Your task to perform on an android device: change timer sound Image 0: 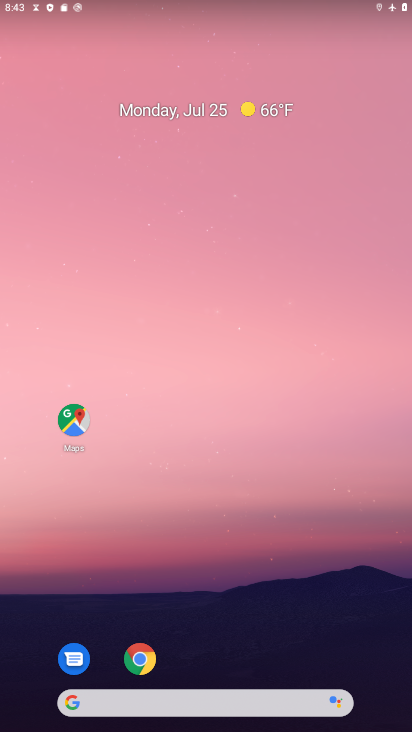
Step 0: click (142, 84)
Your task to perform on an android device: change timer sound Image 1: 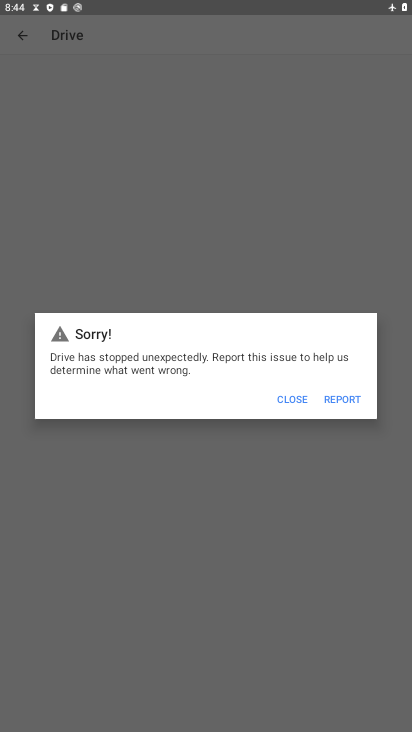
Step 1: click (284, 403)
Your task to perform on an android device: change timer sound Image 2: 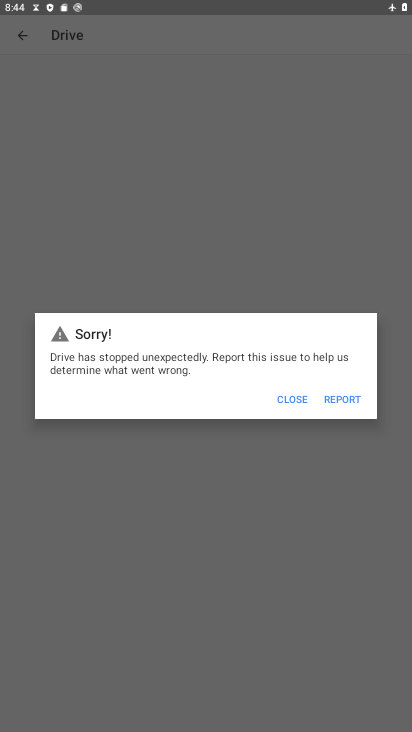
Step 2: click (285, 401)
Your task to perform on an android device: change timer sound Image 3: 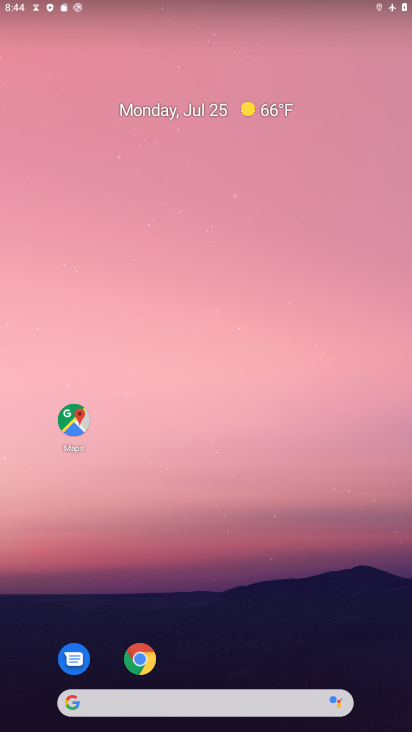
Step 3: drag from (231, 603) to (183, 10)
Your task to perform on an android device: change timer sound Image 4: 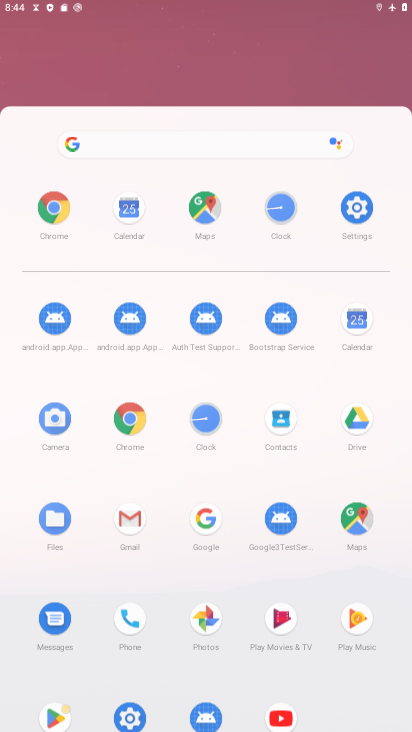
Step 4: drag from (176, 507) to (126, 17)
Your task to perform on an android device: change timer sound Image 5: 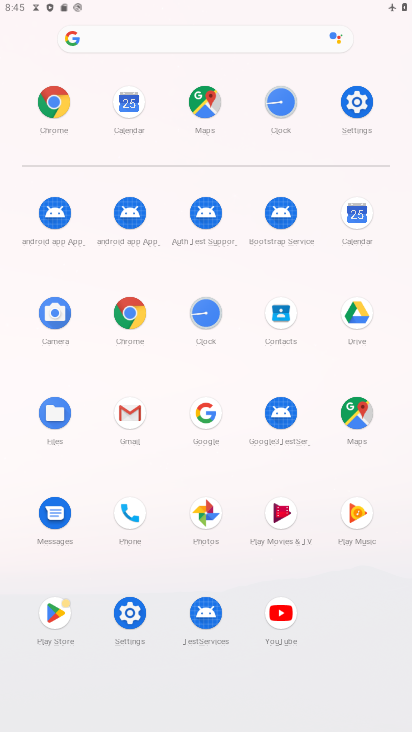
Step 5: click (209, 308)
Your task to perform on an android device: change timer sound Image 6: 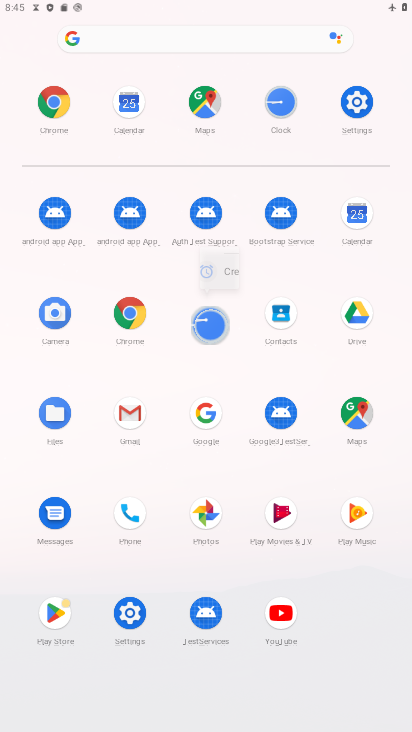
Step 6: click (204, 326)
Your task to perform on an android device: change timer sound Image 7: 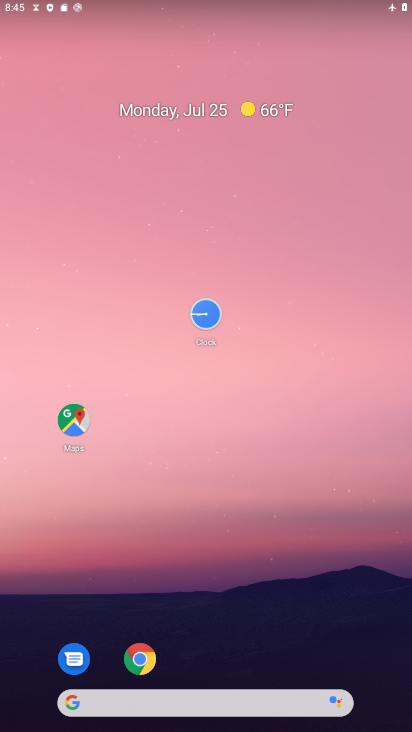
Step 7: click (206, 320)
Your task to perform on an android device: change timer sound Image 8: 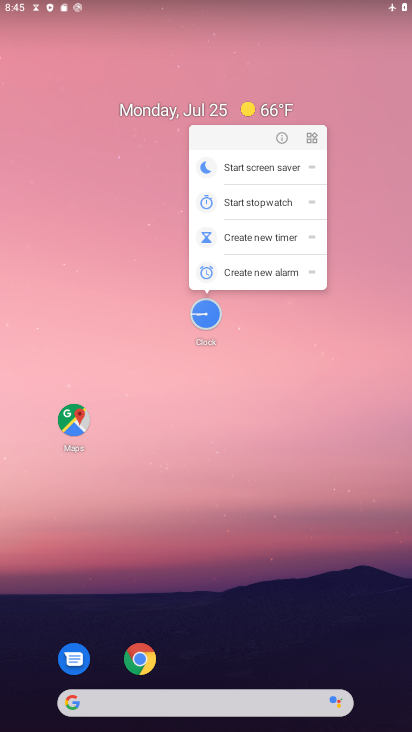
Step 8: click (208, 312)
Your task to perform on an android device: change timer sound Image 9: 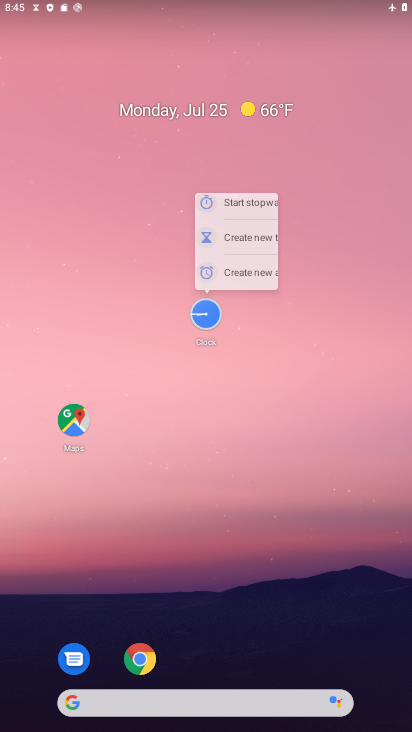
Step 9: click (207, 313)
Your task to perform on an android device: change timer sound Image 10: 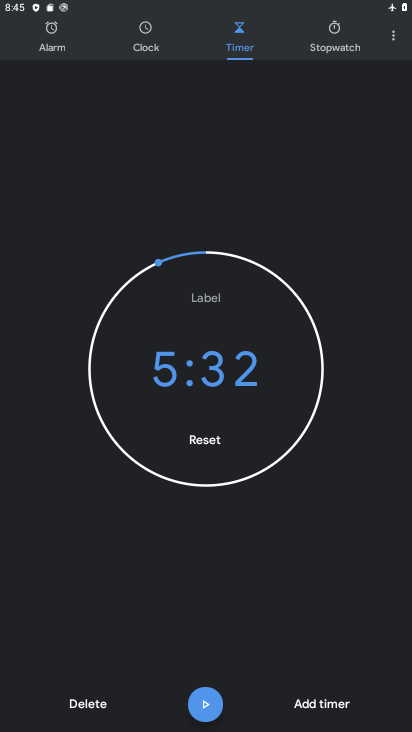
Step 10: click (215, 321)
Your task to perform on an android device: change timer sound Image 11: 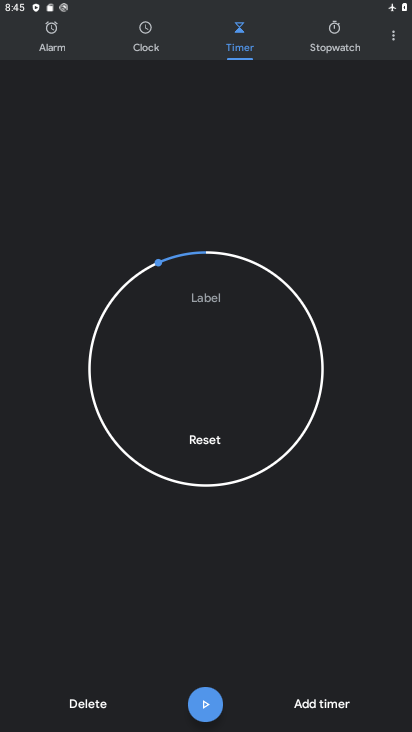
Step 11: click (384, 36)
Your task to perform on an android device: change timer sound Image 12: 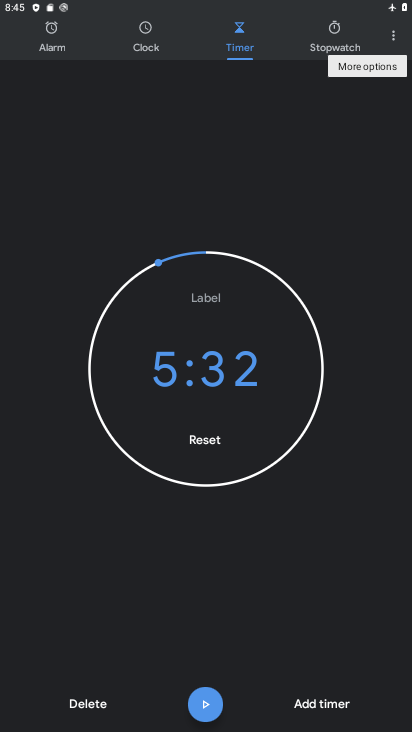
Step 12: click (388, 35)
Your task to perform on an android device: change timer sound Image 13: 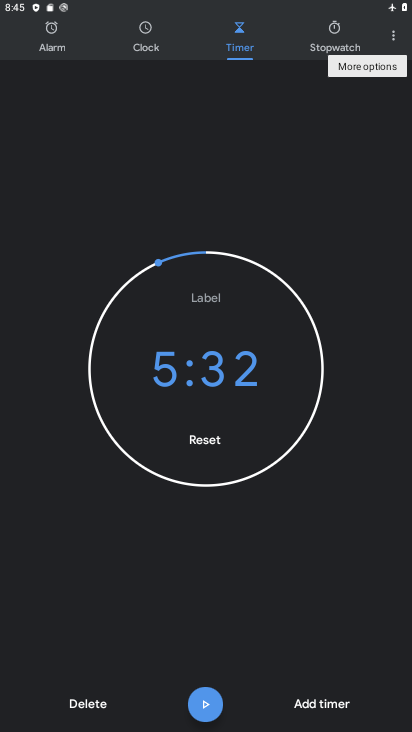
Step 13: click (391, 40)
Your task to perform on an android device: change timer sound Image 14: 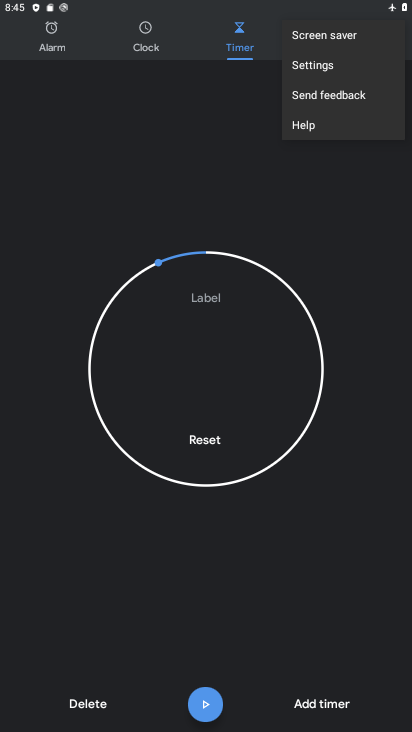
Step 14: click (392, 40)
Your task to perform on an android device: change timer sound Image 15: 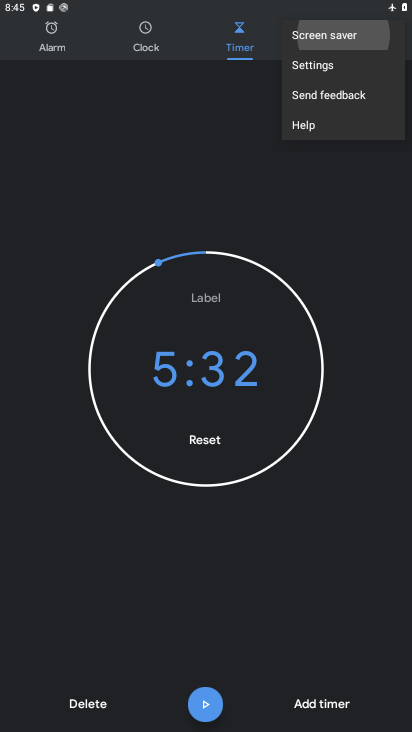
Step 15: click (392, 40)
Your task to perform on an android device: change timer sound Image 16: 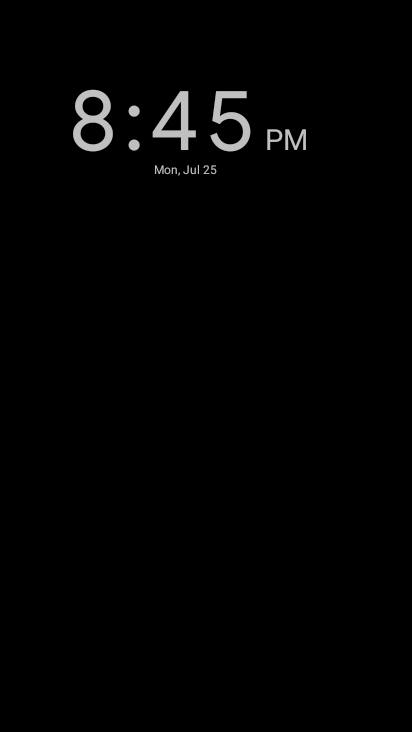
Step 16: press back button
Your task to perform on an android device: change timer sound Image 17: 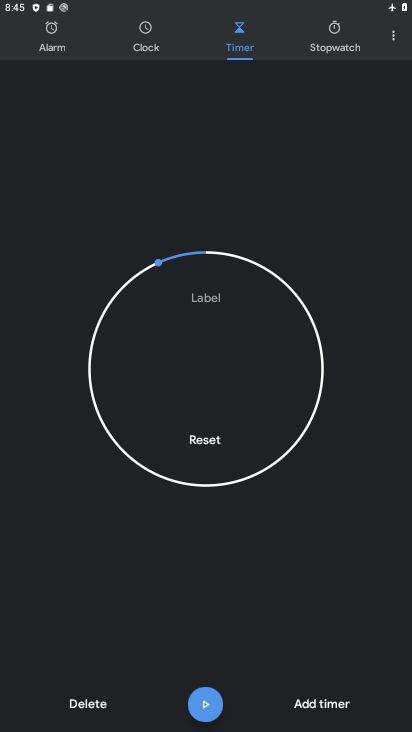
Step 17: click (388, 38)
Your task to perform on an android device: change timer sound Image 18: 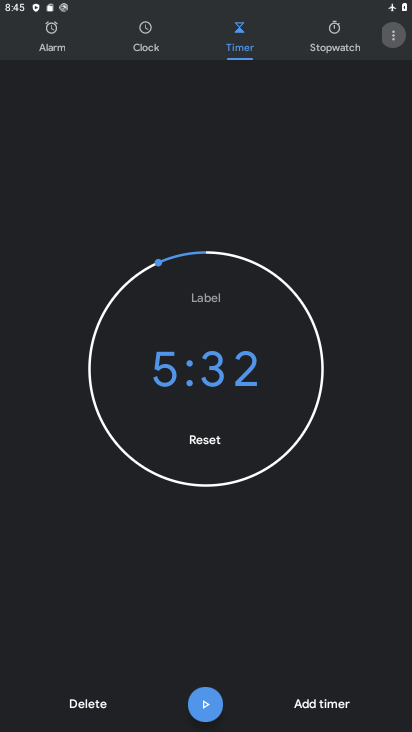
Step 18: click (392, 35)
Your task to perform on an android device: change timer sound Image 19: 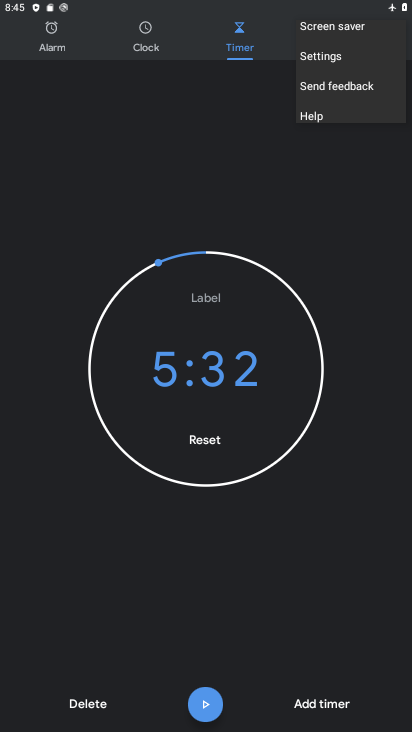
Step 19: click (393, 36)
Your task to perform on an android device: change timer sound Image 20: 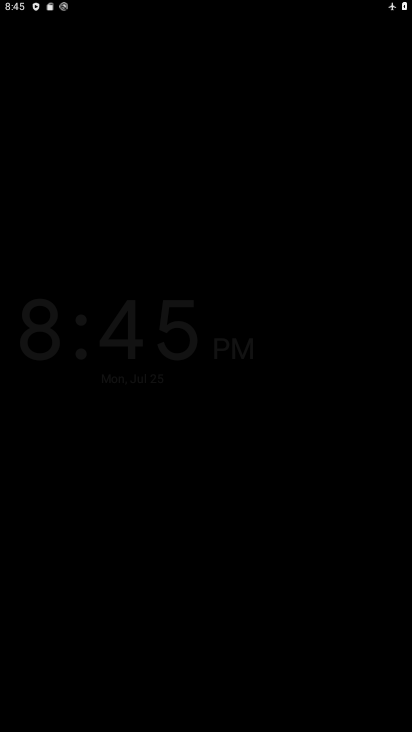
Step 20: click (330, 66)
Your task to perform on an android device: change timer sound Image 21: 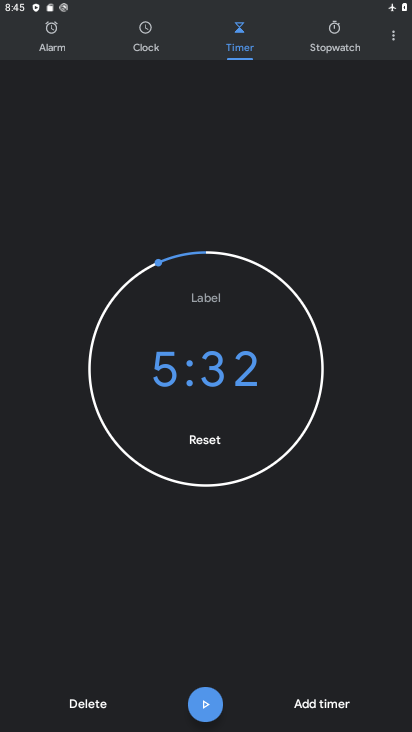
Step 21: click (389, 33)
Your task to perform on an android device: change timer sound Image 22: 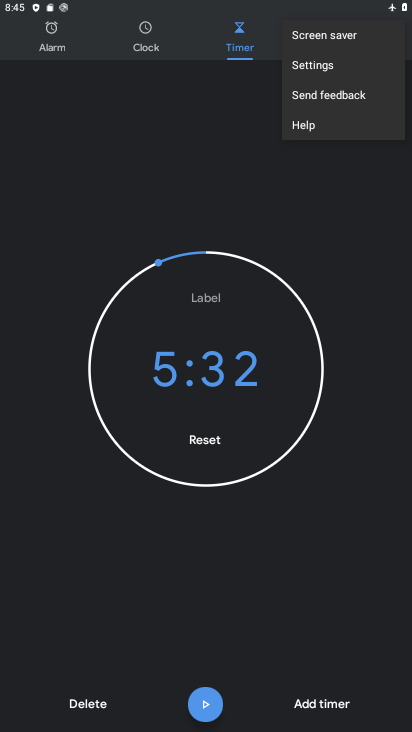
Step 22: click (328, 65)
Your task to perform on an android device: change timer sound Image 23: 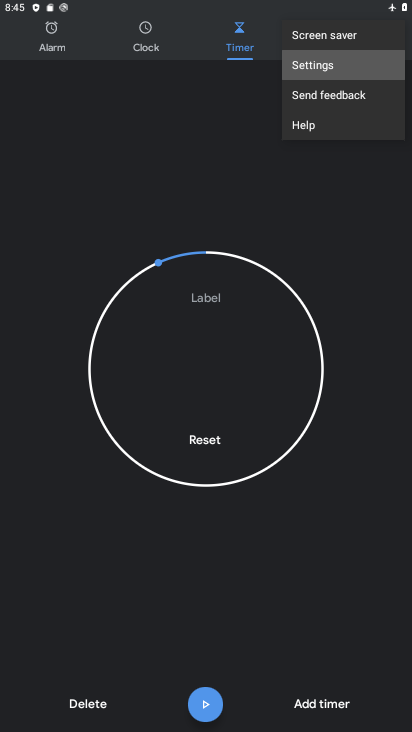
Step 23: click (326, 62)
Your task to perform on an android device: change timer sound Image 24: 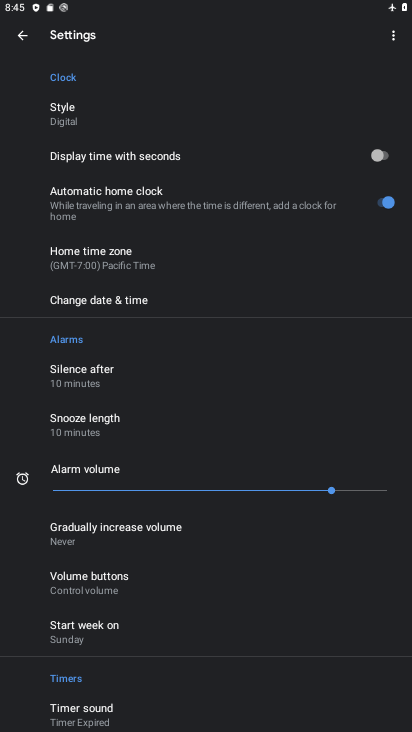
Step 24: click (67, 112)
Your task to perform on an android device: change timer sound Image 25: 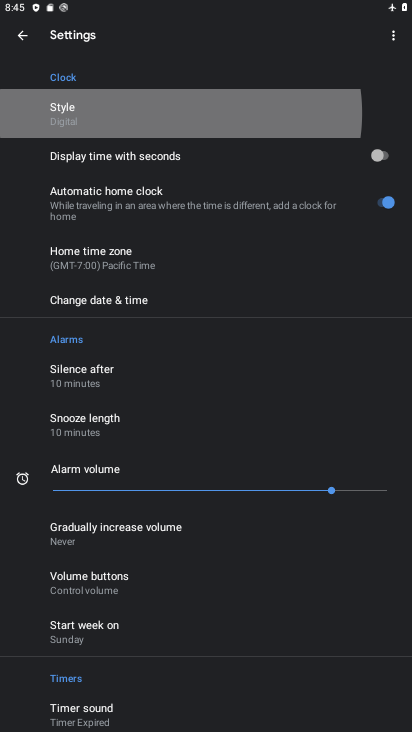
Step 25: click (65, 110)
Your task to perform on an android device: change timer sound Image 26: 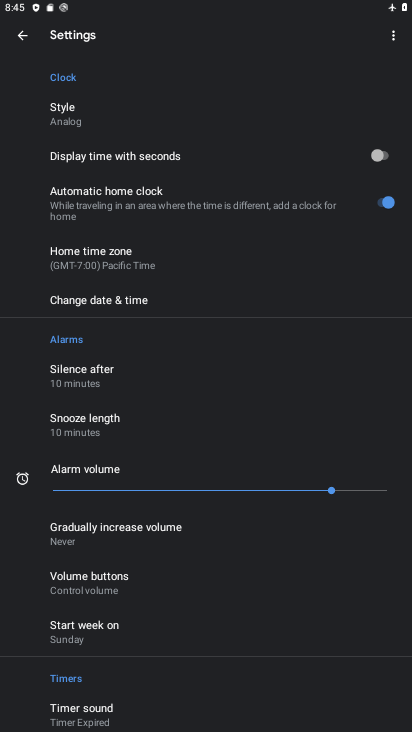
Step 26: click (81, 708)
Your task to perform on an android device: change timer sound Image 27: 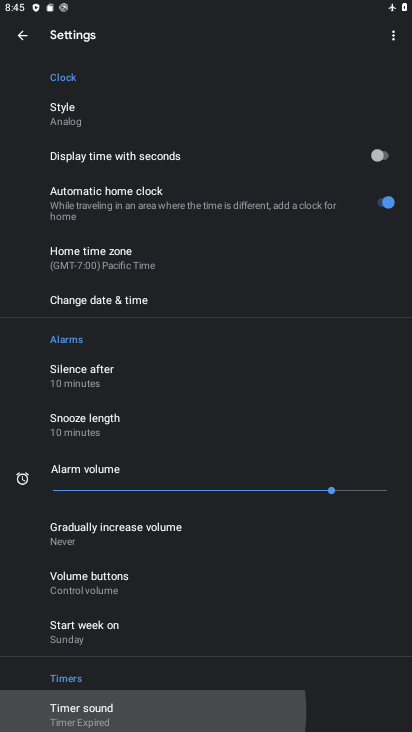
Step 27: click (81, 708)
Your task to perform on an android device: change timer sound Image 28: 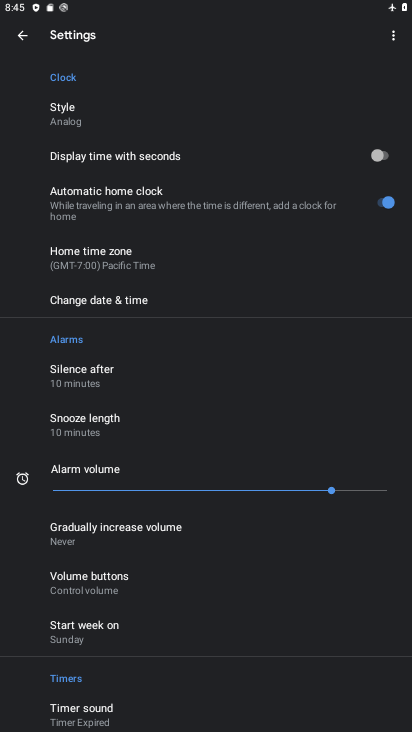
Step 28: click (77, 707)
Your task to perform on an android device: change timer sound Image 29: 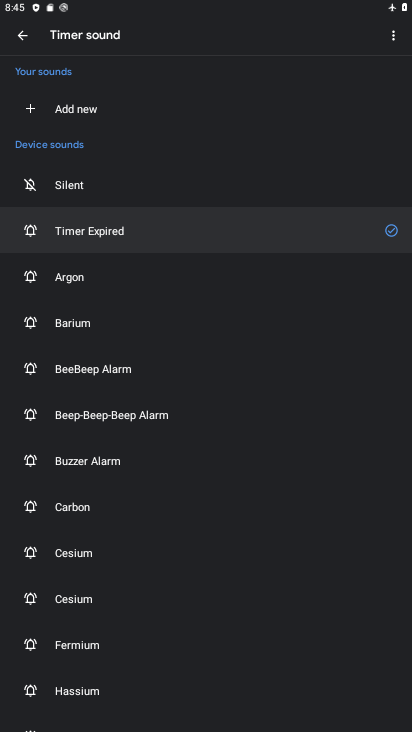
Step 29: click (32, 458)
Your task to perform on an android device: change timer sound Image 30: 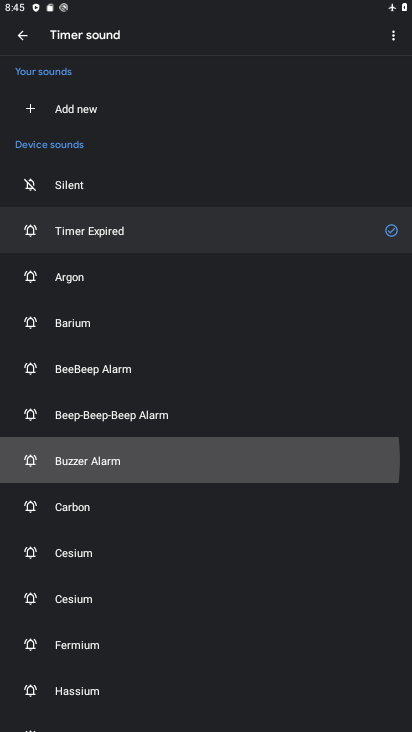
Step 30: click (31, 459)
Your task to perform on an android device: change timer sound Image 31: 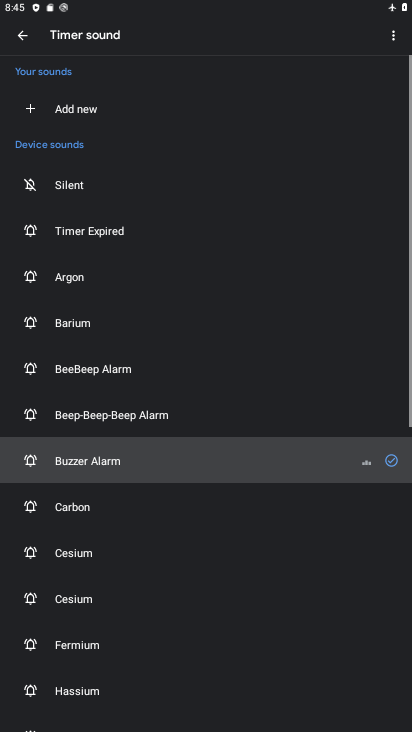
Step 31: click (34, 462)
Your task to perform on an android device: change timer sound Image 32: 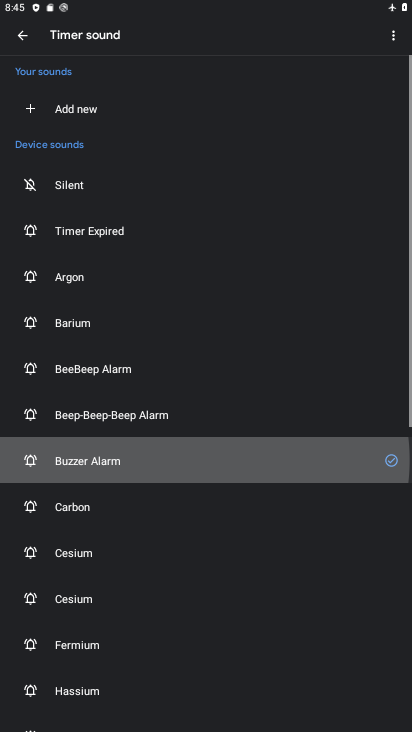
Step 32: click (35, 460)
Your task to perform on an android device: change timer sound Image 33: 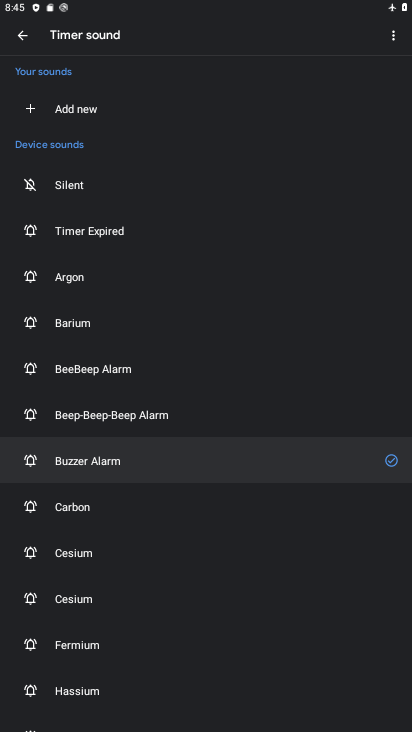
Step 33: task complete